Your task to perform on an android device: Go to calendar. Show me events next week Image 0: 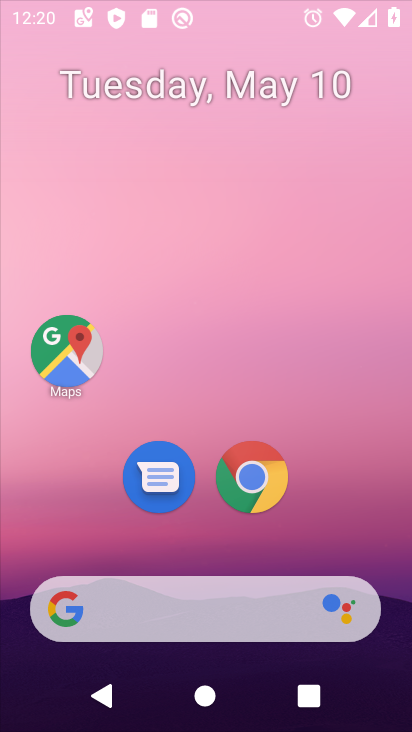
Step 0: drag from (322, 348) to (311, 69)
Your task to perform on an android device: Go to calendar. Show me events next week Image 1: 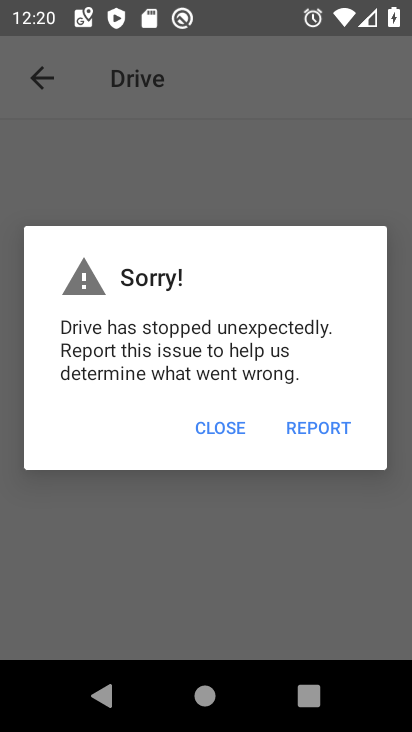
Step 1: press home button
Your task to perform on an android device: Go to calendar. Show me events next week Image 2: 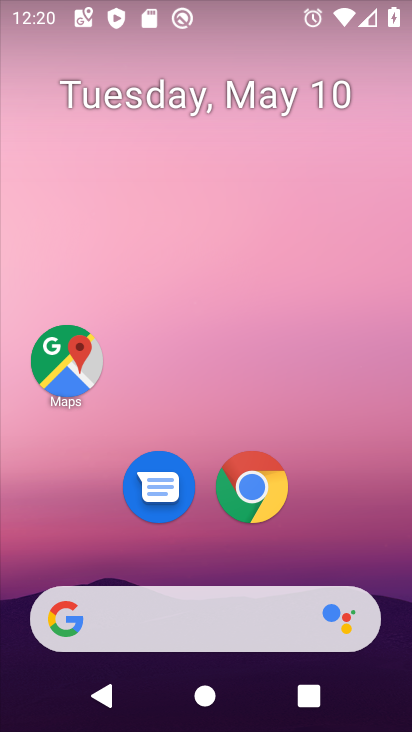
Step 2: drag from (361, 485) to (310, 45)
Your task to perform on an android device: Go to calendar. Show me events next week Image 3: 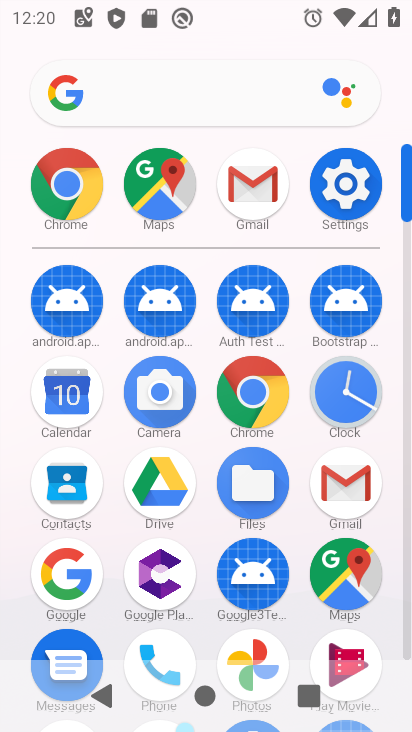
Step 3: click (82, 384)
Your task to perform on an android device: Go to calendar. Show me events next week Image 4: 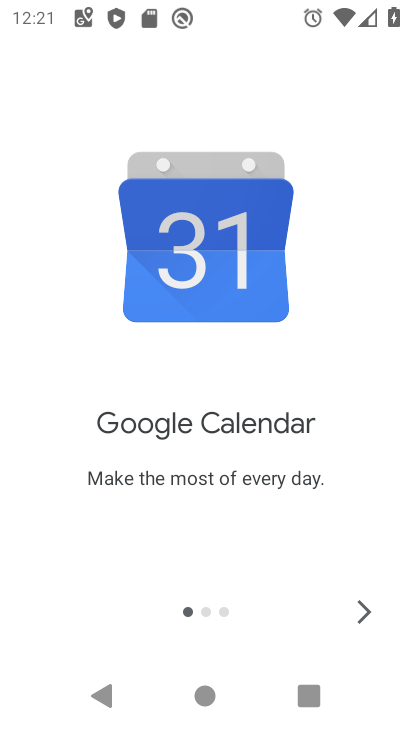
Step 4: click (366, 613)
Your task to perform on an android device: Go to calendar. Show me events next week Image 5: 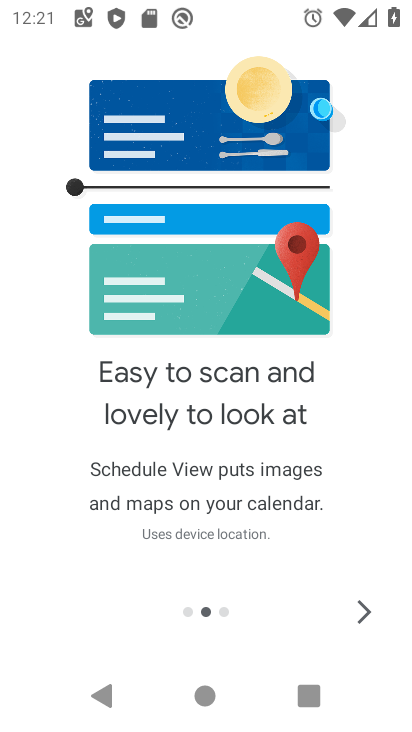
Step 5: click (366, 613)
Your task to perform on an android device: Go to calendar. Show me events next week Image 6: 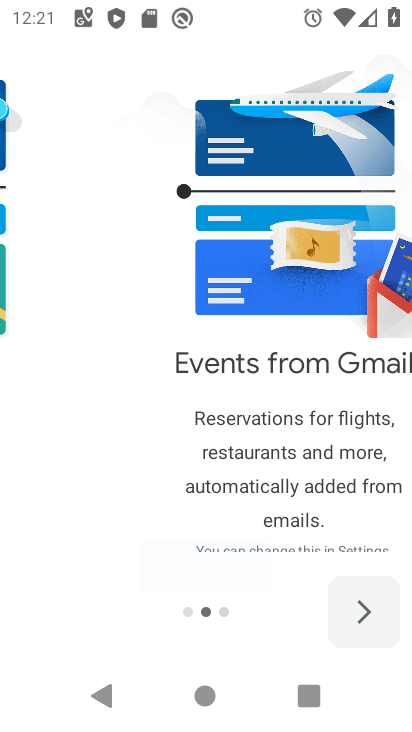
Step 6: click (366, 613)
Your task to perform on an android device: Go to calendar. Show me events next week Image 7: 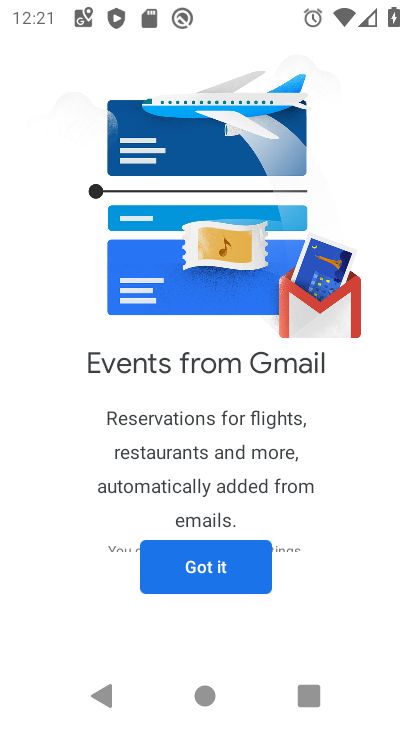
Step 7: click (233, 563)
Your task to perform on an android device: Go to calendar. Show me events next week Image 8: 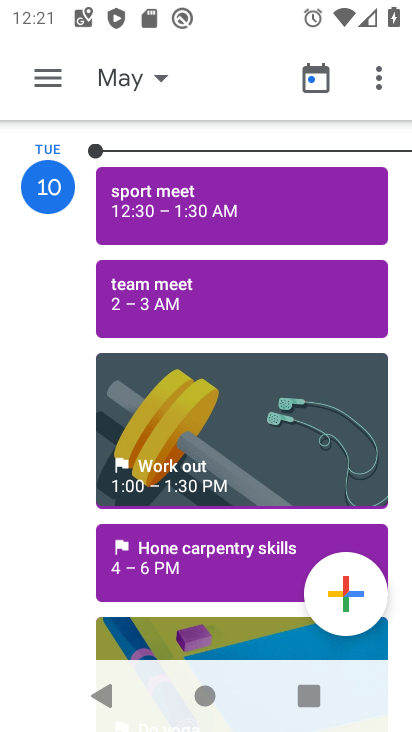
Step 8: task complete